Your task to perform on an android device: check android version Image 0: 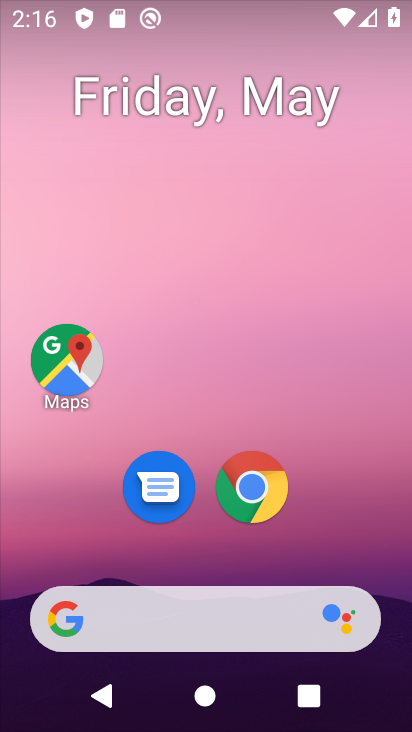
Step 0: drag from (223, 511) to (292, 28)
Your task to perform on an android device: check android version Image 1: 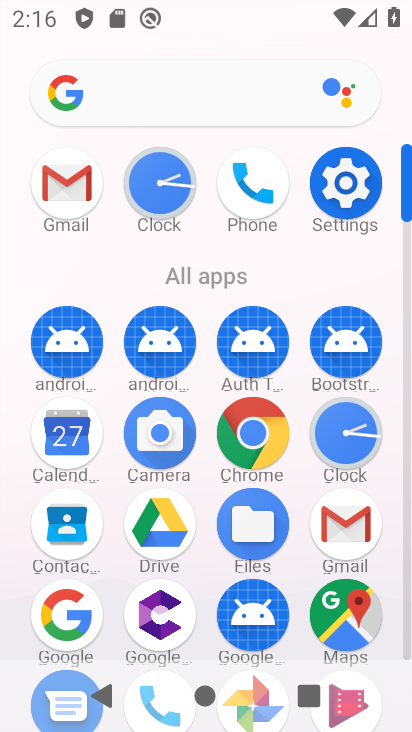
Step 1: click (345, 190)
Your task to perform on an android device: check android version Image 2: 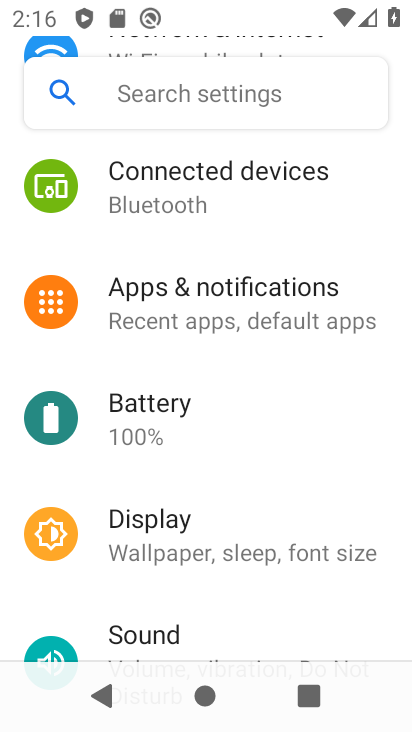
Step 2: drag from (182, 596) to (297, 36)
Your task to perform on an android device: check android version Image 3: 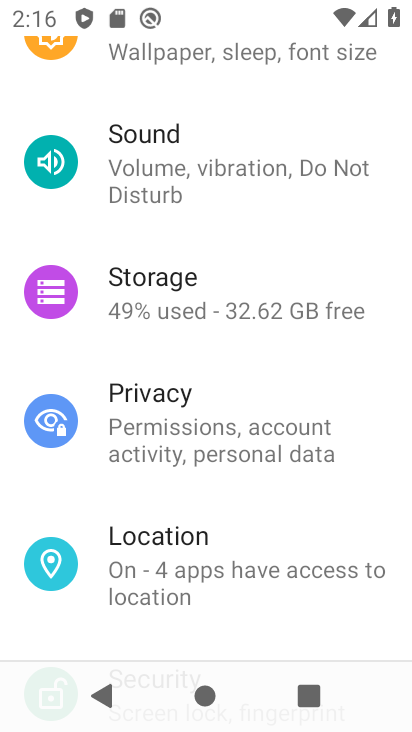
Step 3: drag from (165, 610) to (301, 20)
Your task to perform on an android device: check android version Image 4: 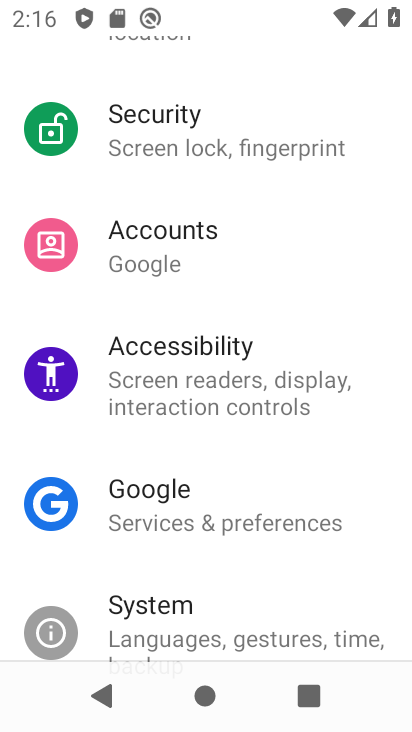
Step 4: click (184, 619)
Your task to perform on an android device: check android version Image 5: 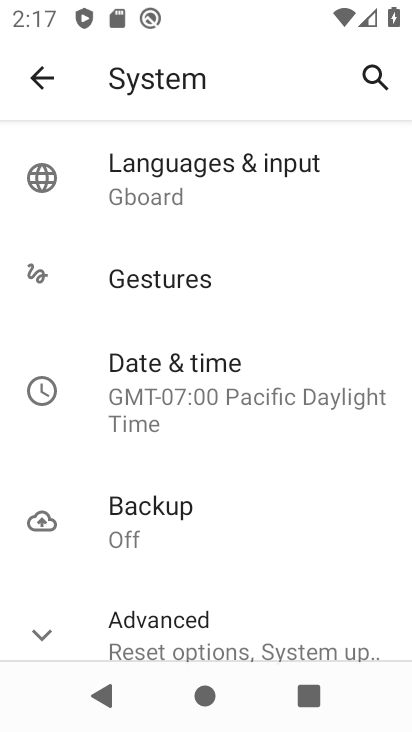
Step 5: drag from (201, 661) to (255, 84)
Your task to perform on an android device: check android version Image 6: 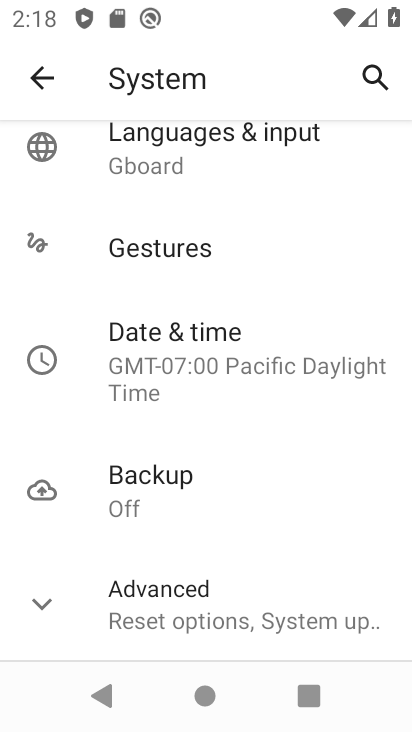
Step 6: drag from (214, 610) to (302, 21)
Your task to perform on an android device: check android version Image 7: 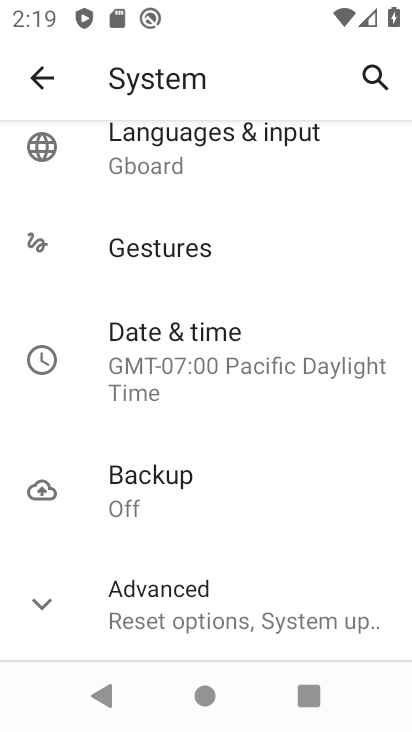
Step 7: click (156, 604)
Your task to perform on an android device: check android version Image 8: 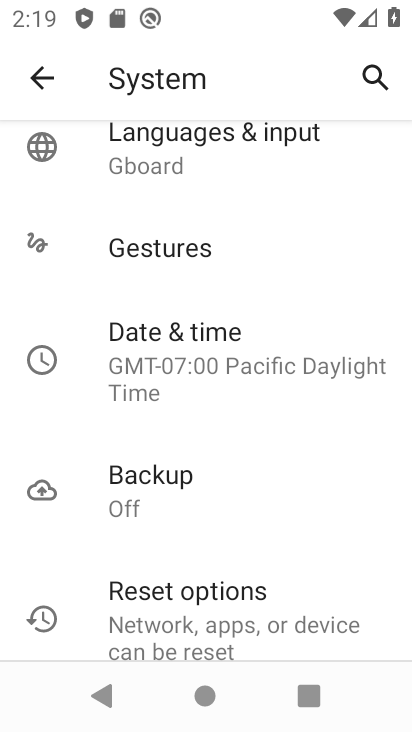
Step 8: task complete